Your task to perform on an android device: Look up the best rated pressure washer on Home Depot. Image 0: 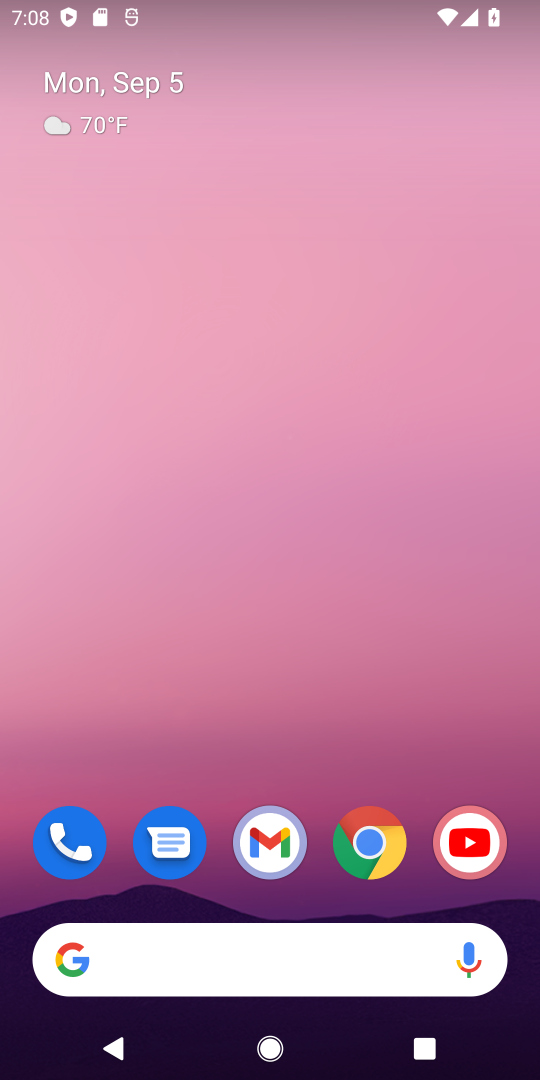
Step 0: click (366, 843)
Your task to perform on an android device: Look up the best rated pressure washer on Home Depot. Image 1: 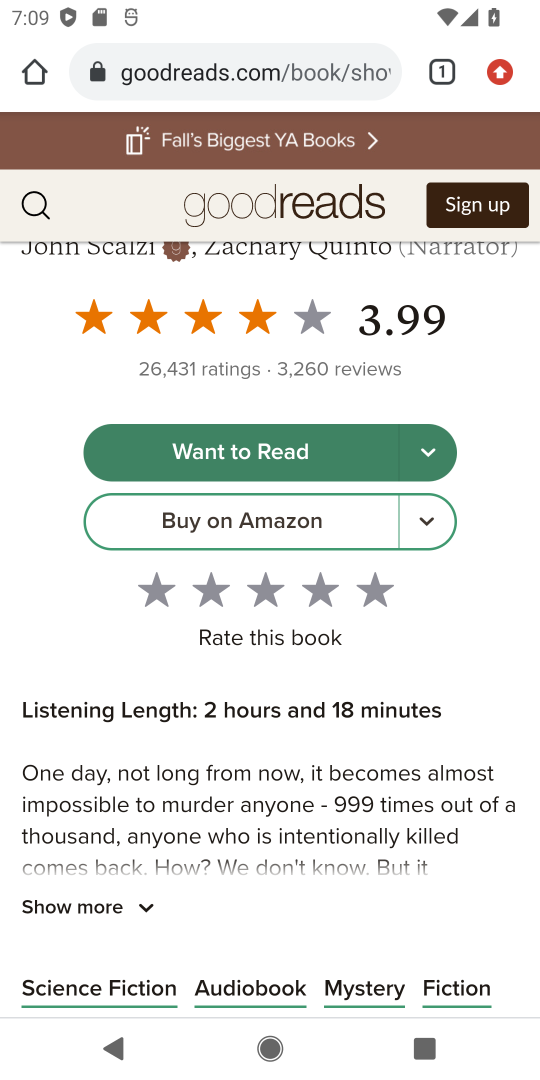
Step 1: click (346, 82)
Your task to perform on an android device: Look up the best rated pressure washer on Home Depot. Image 2: 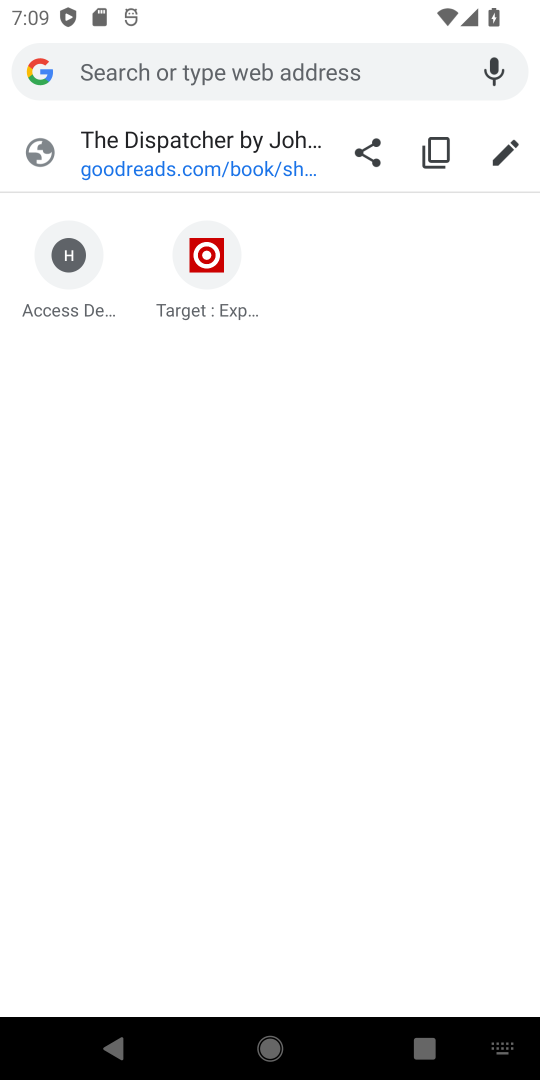
Step 2: type "Home Depot"
Your task to perform on an android device: Look up the best rated pressure washer on Home Depot. Image 3: 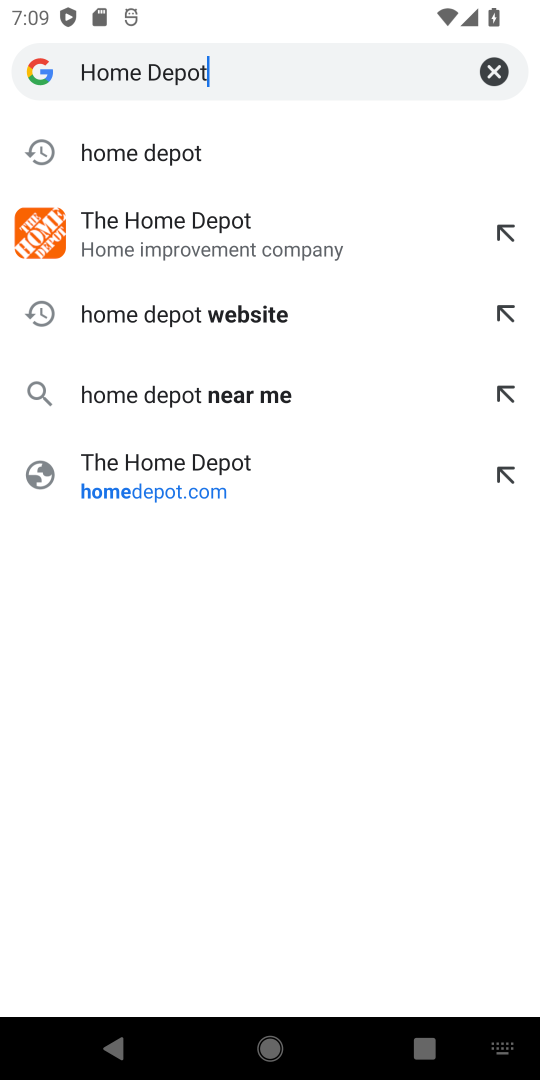
Step 3: click (104, 244)
Your task to perform on an android device: Look up the best rated pressure washer on Home Depot. Image 4: 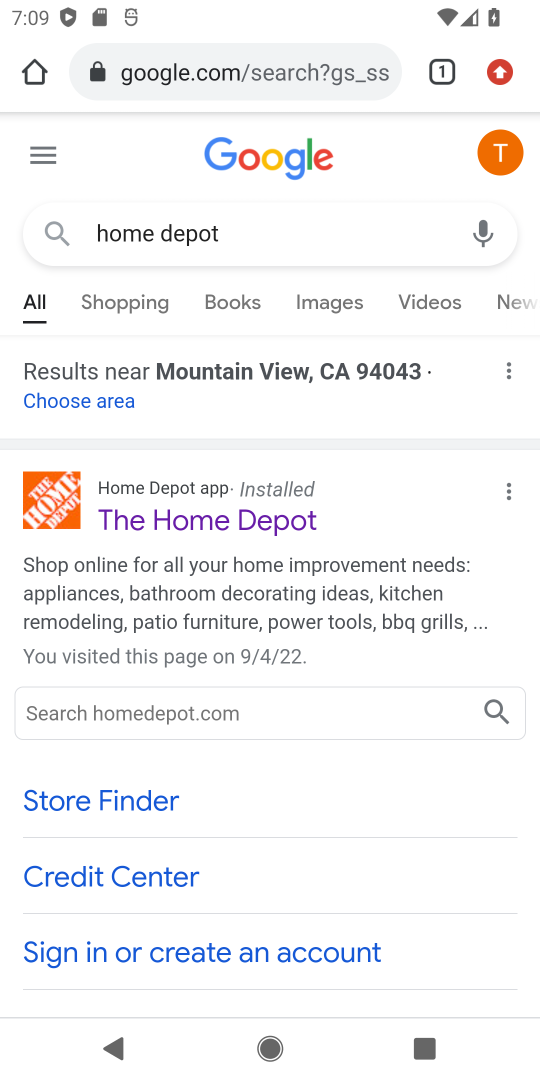
Step 4: click (254, 530)
Your task to perform on an android device: Look up the best rated pressure washer on Home Depot. Image 5: 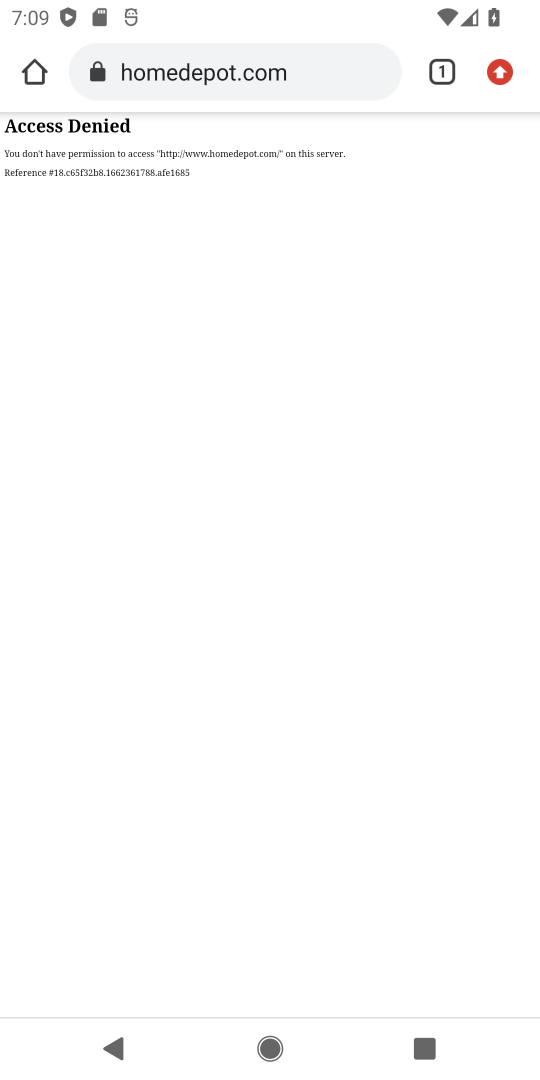
Step 5: task complete